Your task to perform on an android device: change the clock style Image 0: 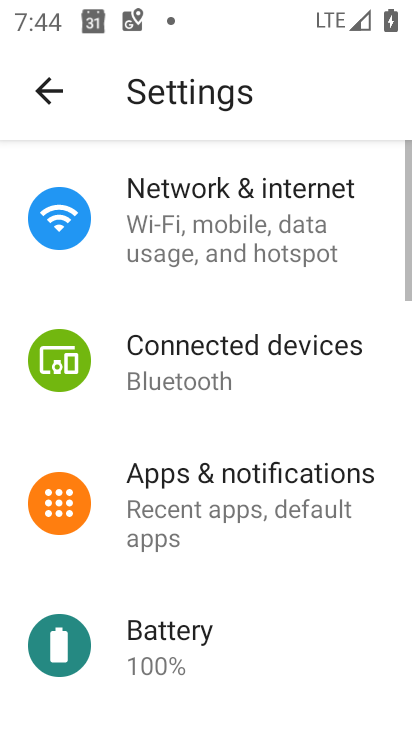
Step 0: press home button
Your task to perform on an android device: change the clock style Image 1: 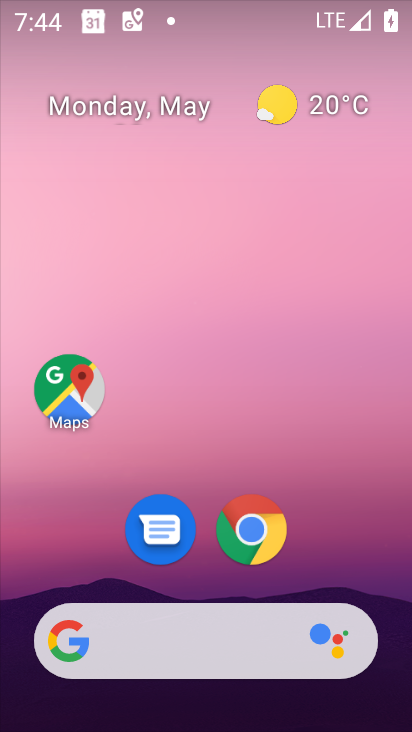
Step 1: drag from (10, 614) to (223, 220)
Your task to perform on an android device: change the clock style Image 2: 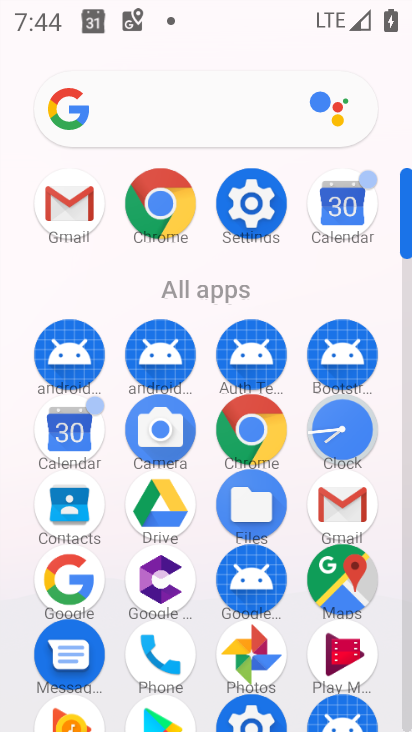
Step 2: click (338, 453)
Your task to perform on an android device: change the clock style Image 3: 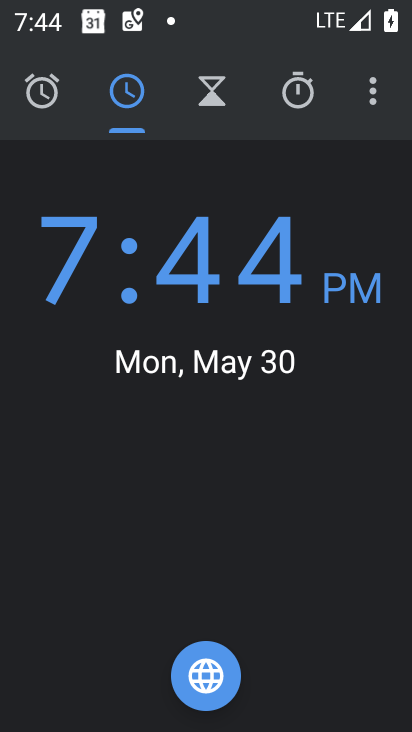
Step 3: click (374, 98)
Your task to perform on an android device: change the clock style Image 4: 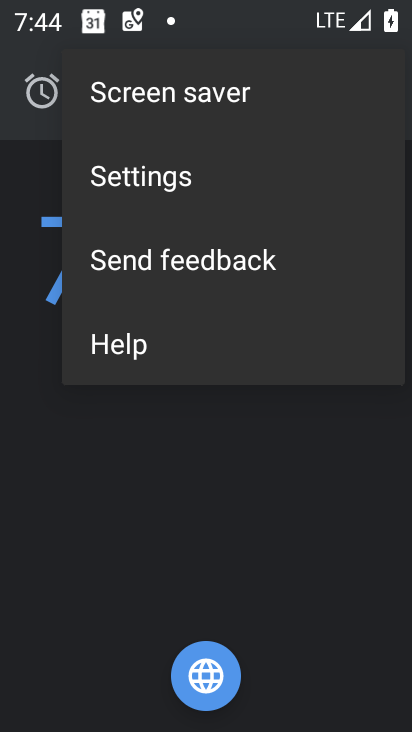
Step 4: click (196, 177)
Your task to perform on an android device: change the clock style Image 5: 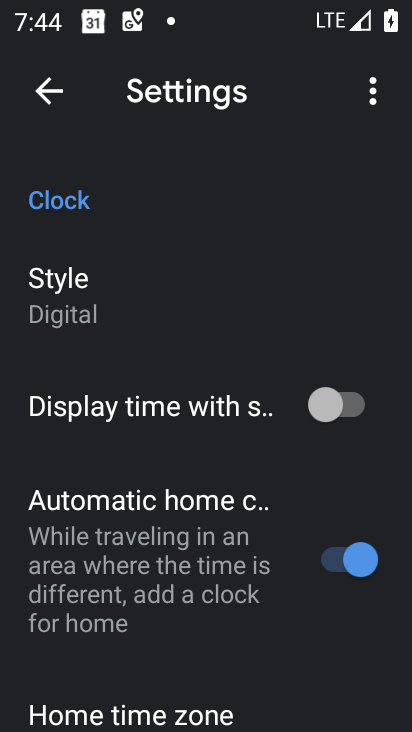
Step 5: click (113, 289)
Your task to perform on an android device: change the clock style Image 6: 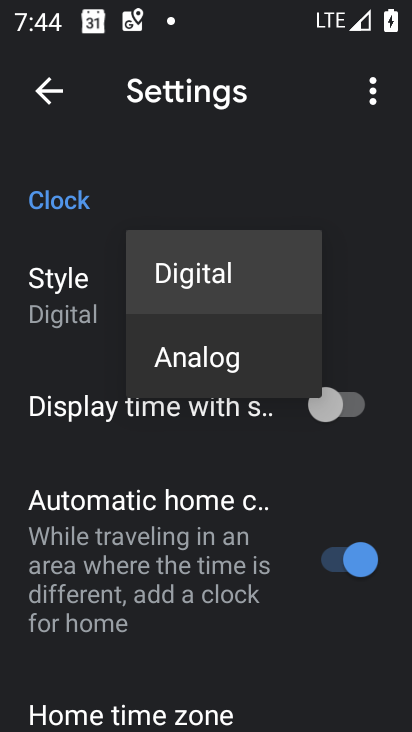
Step 6: click (239, 364)
Your task to perform on an android device: change the clock style Image 7: 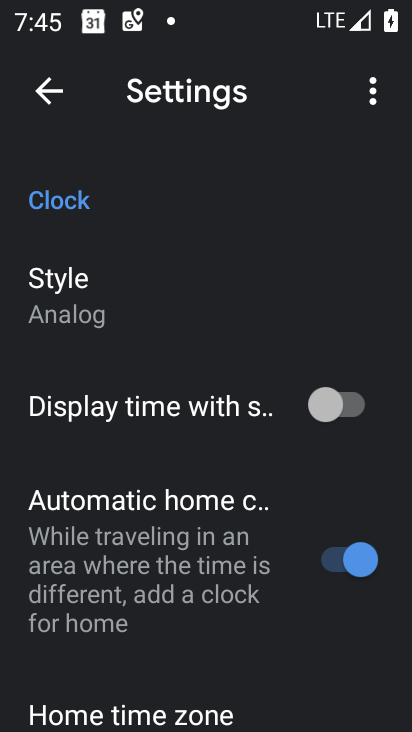
Step 7: task complete